Your task to perform on an android device: change notification settings in the gmail app Image 0: 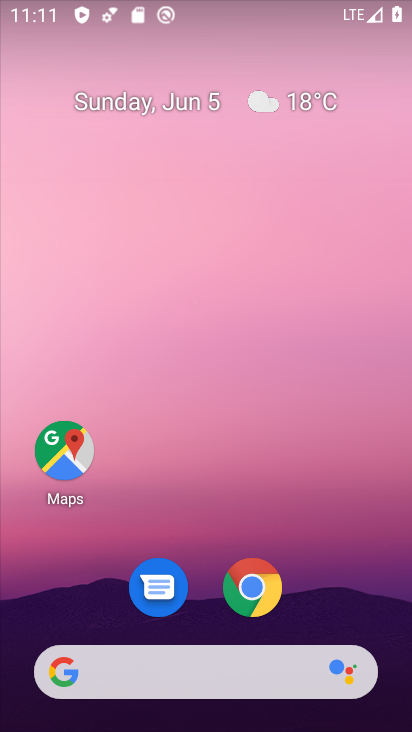
Step 0: drag from (198, 632) to (237, 92)
Your task to perform on an android device: change notification settings in the gmail app Image 1: 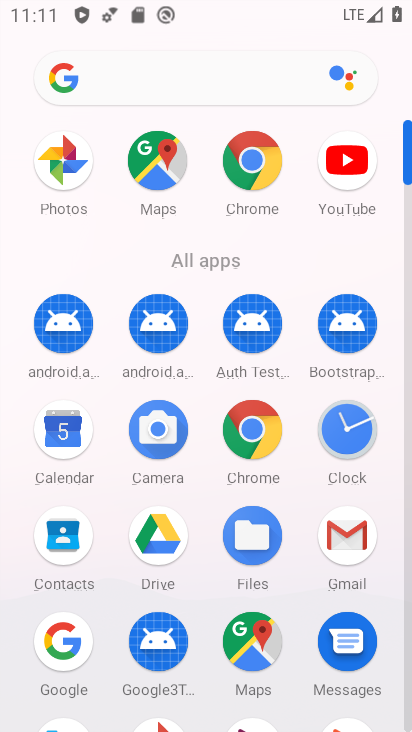
Step 1: click (318, 525)
Your task to perform on an android device: change notification settings in the gmail app Image 2: 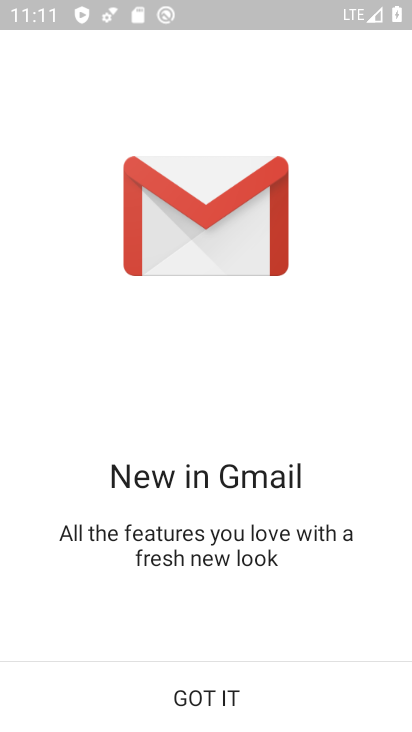
Step 2: click (215, 693)
Your task to perform on an android device: change notification settings in the gmail app Image 3: 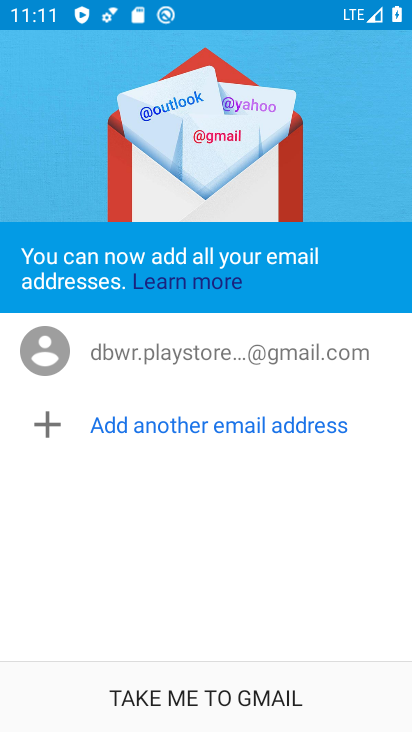
Step 3: click (181, 685)
Your task to perform on an android device: change notification settings in the gmail app Image 4: 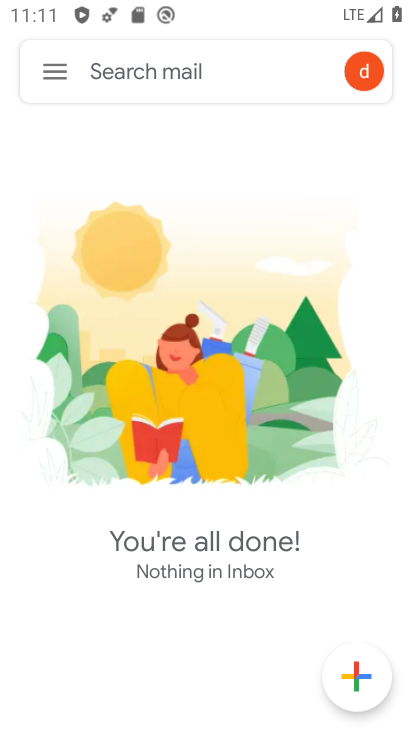
Step 4: click (54, 68)
Your task to perform on an android device: change notification settings in the gmail app Image 5: 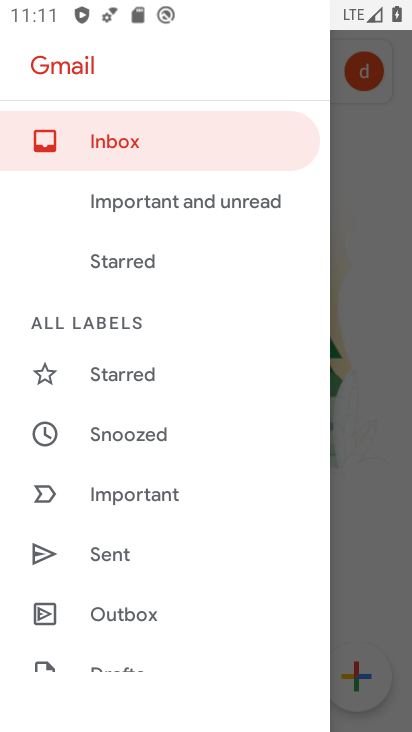
Step 5: drag from (113, 608) to (215, 107)
Your task to perform on an android device: change notification settings in the gmail app Image 6: 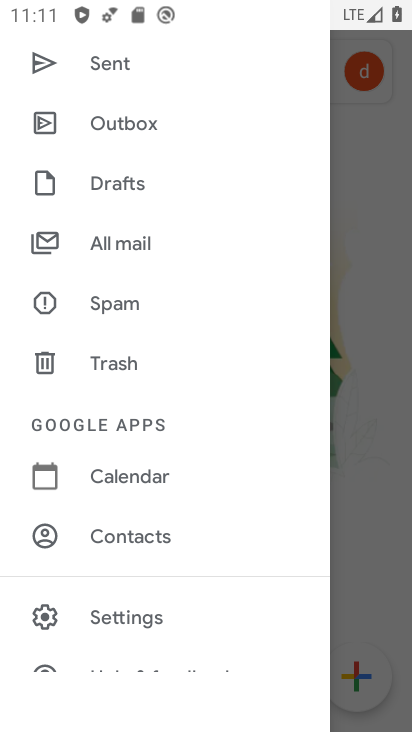
Step 6: drag from (118, 634) to (91, 116)
Your task to perform on an android device: change notification settings in the gmail app Image 7: 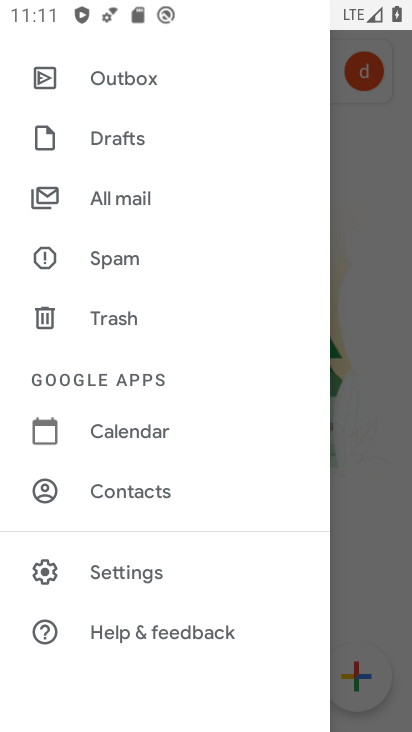
Step 7: click (129, 589)
Your task to perform on an android device: change notification settings in the gmail app Image 8: 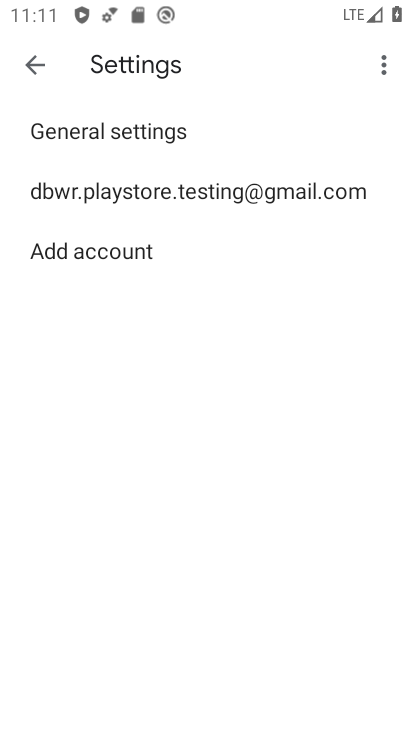
Step 8: click (119, 208)
Your task to perform on an android device: change notification settings in the gmail app Image 9: 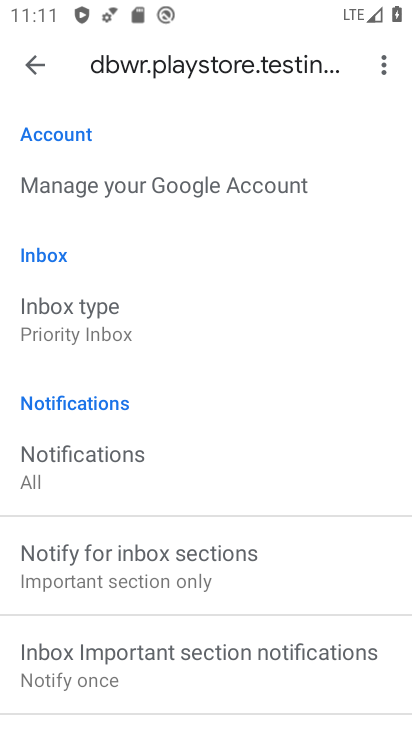
Step 9: click (144, 511)
Your task to perform on an android device: change notification settings in the gmail app Image 10: 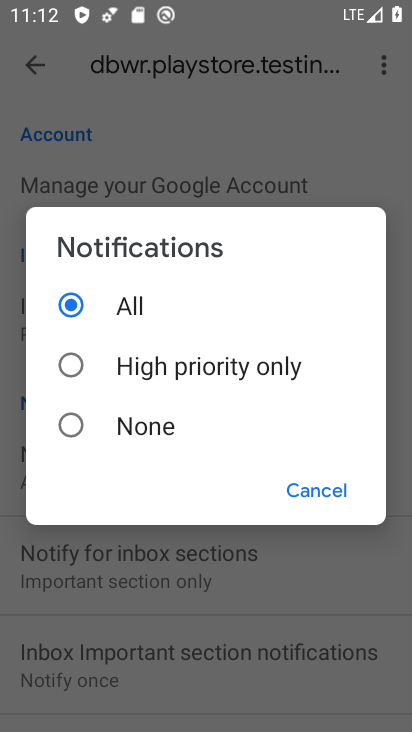
Step 10: click (160, 380)
Your task to perform on an android device: change notification settings in the gmail app Image 11: 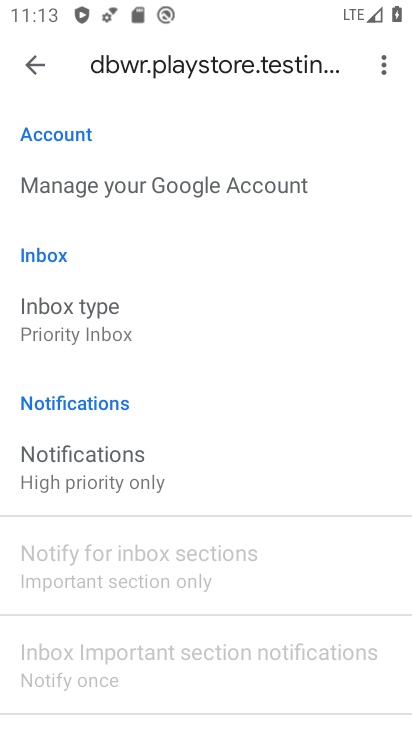
Step 11: click (120, 475)
Your task to perform on an android device: change notification settings in the gmail app Image 12: 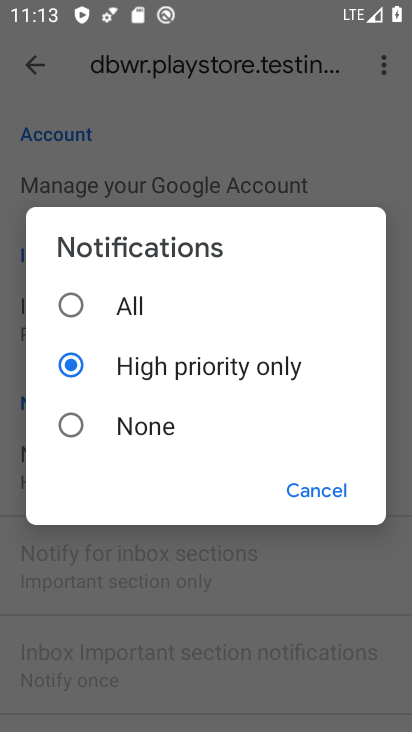
Step 12: click (111, 322)
Your task to perform on an android device: change notification settings in the gmail app Image 13: 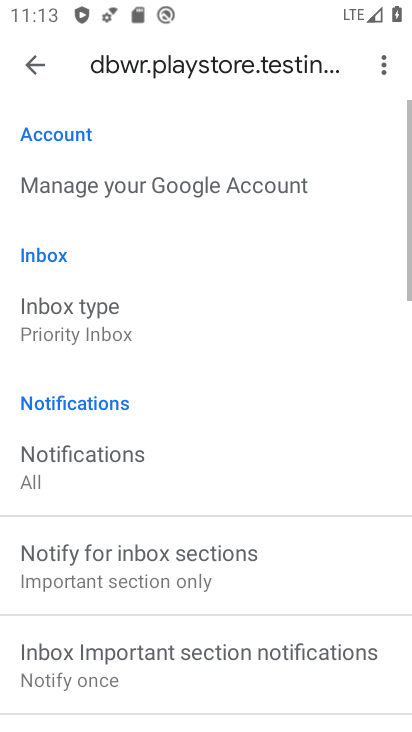
Step 13: task complete